Your task to perform on an android device: Open calendar and show me the first week of next month Image 0: 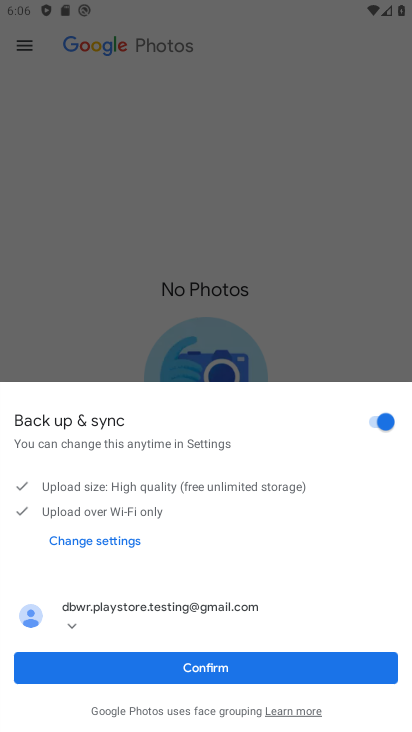
Step 0: press home button
Your task to perform on an android device: Open calendar and show me the first week of next month Image 1: 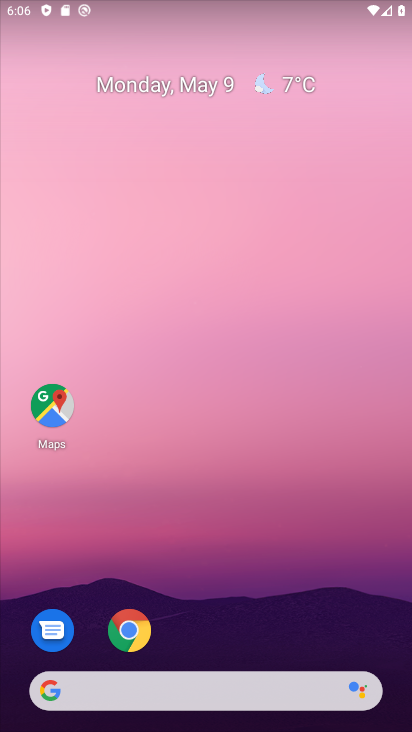
Step 1: drag from (242, 514) to (178, 159)
Your task to perform on an android device: Open calendar and show me the first week of next month Image 2: 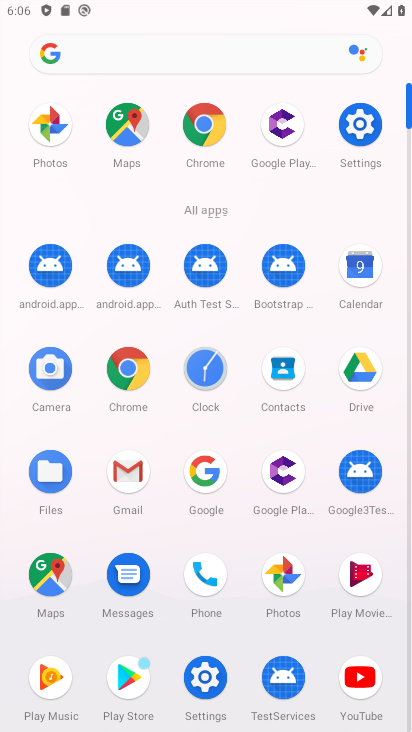
Step 2: drag from (253, 463) to (261, 327)
Your task to perform on an android device: Open calendar and show me the first week of next month Image 3: 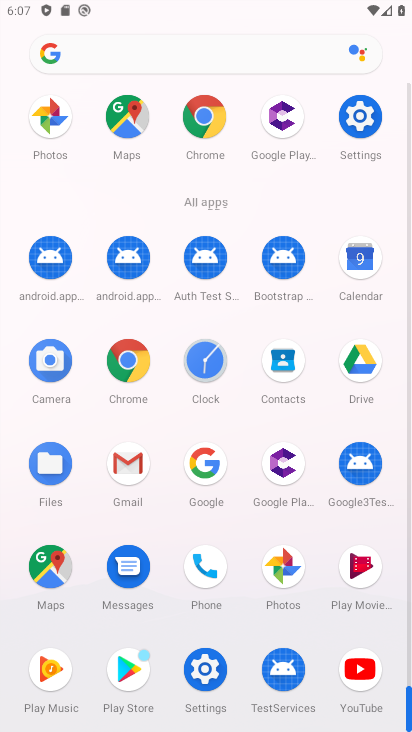
Step 3: drag from (252, 603) to (245, 263)
Your task to perform on an android device: Open calendar and show me the first week of next month Image 4: 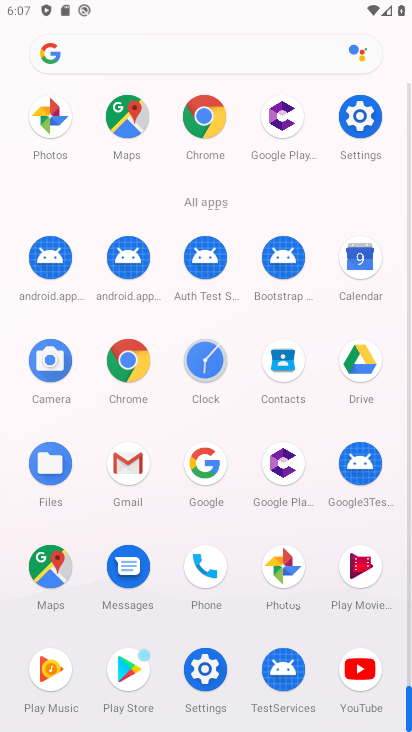
Step 4: drag from (247, 248) to (199, 574)
Your task to perform on an android device: Open calendar and show me the first week of next month Image 5: 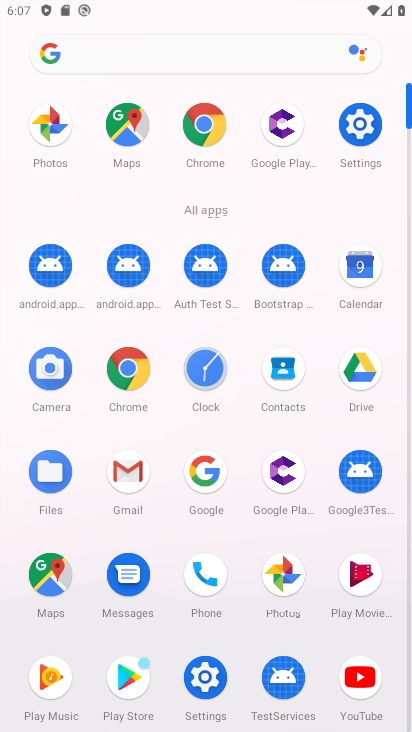
Step 5: drag from (234, 605) to (247, 373)
Your task to perform on an android device: Open calendar and show me the first week of next month Image 6: 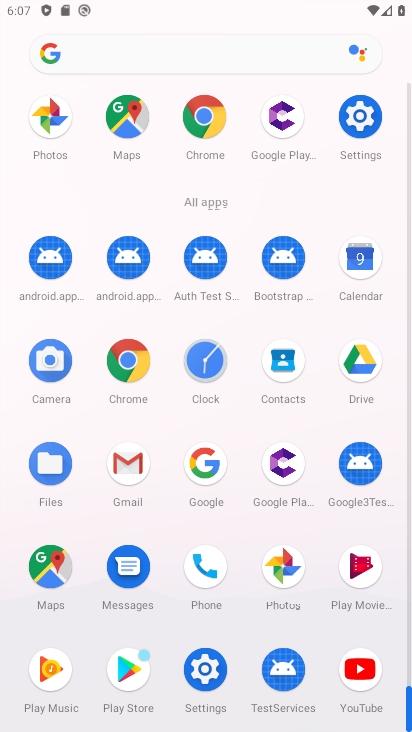
Step 6: click (362, 279)
Your task to perform on an android device: Open calendar and show me the first week of next month Image 7: 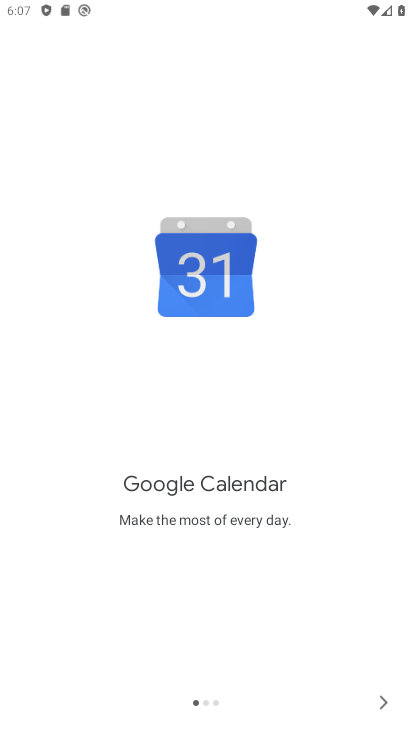
Step 7: click (391, 707)
Your task to perform on an android device: Open calendar and show me the first week of next month Image 8: 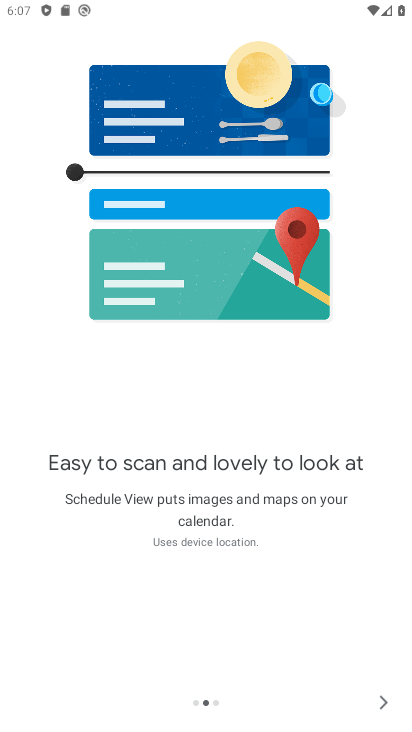
Step 8: click (390, 703)
Your task to perform on an android device: Open calendar and show me the first week of next month Image 9: 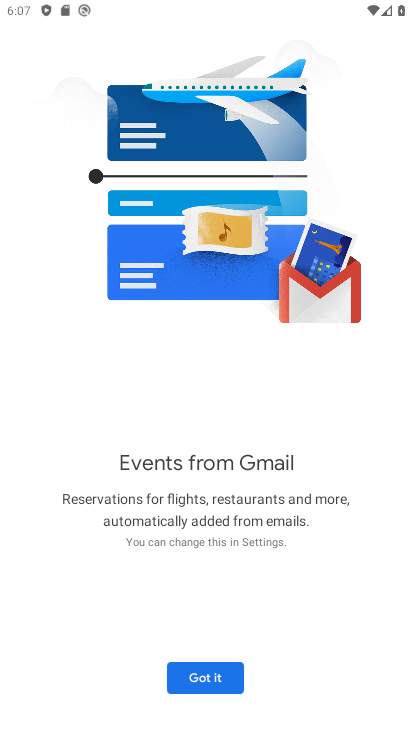
Step 9: click (250, 672)
Your task to perform on an android device: Open calendar and show me the first week of next month Image 10: 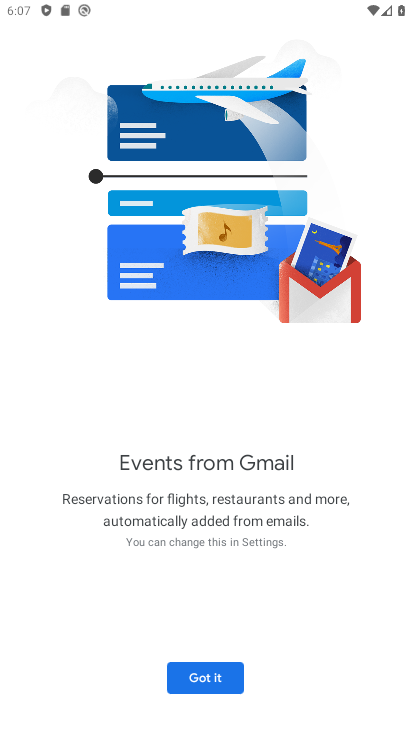
Step 10: click (223, 666)
Your task to perform on an android device: Open calendar and show me the first week of next month Image 11: 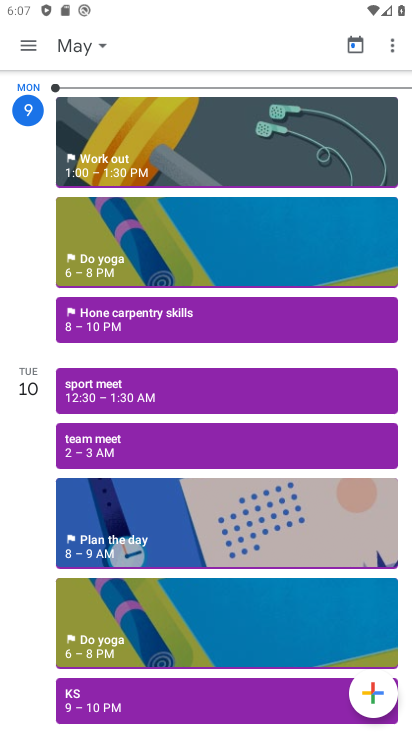
Step 11: click (26, 42)
Your task to perform on an android device: Open calendar and show me the first week of next month Image 12: 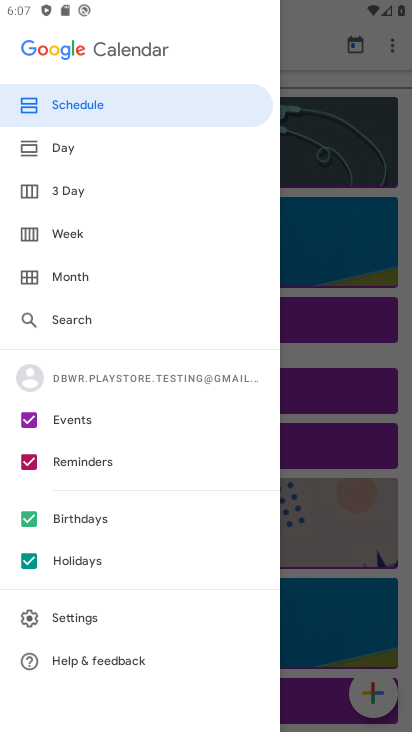
Step 12: click (76, 236)
Your task to perform on an android device: Open calendar and show me the first week of next month Image 13: 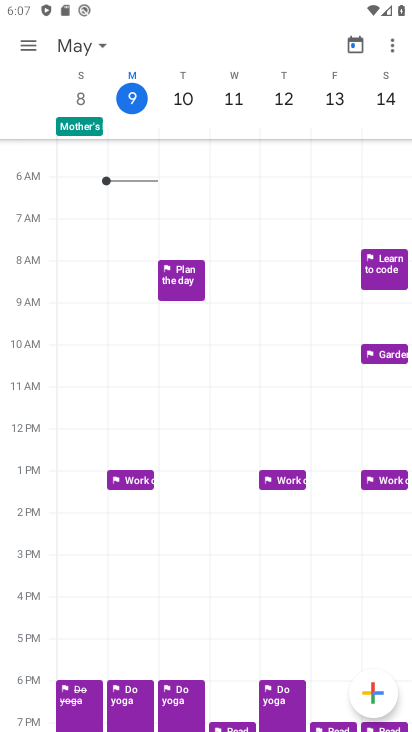
Step 13: click (89, 43)
Your task to perform on an android device: Open calendar and show me the first week of next month Image 14: 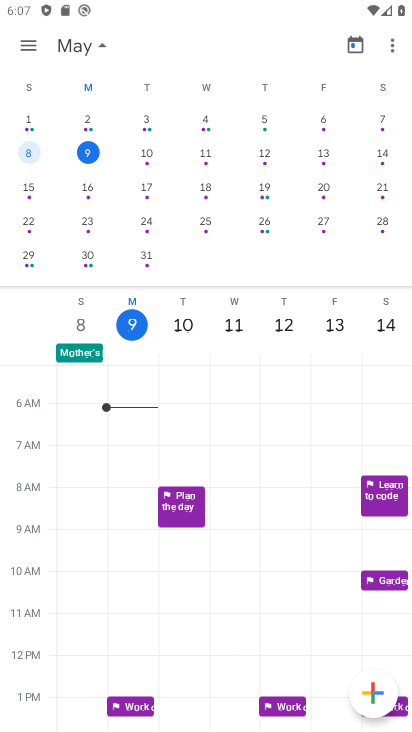
Step 14: drag from (355, 216) to (7, 212)
Your task to perform on an android device: Open calendar and show me the first week of next month Image 15: 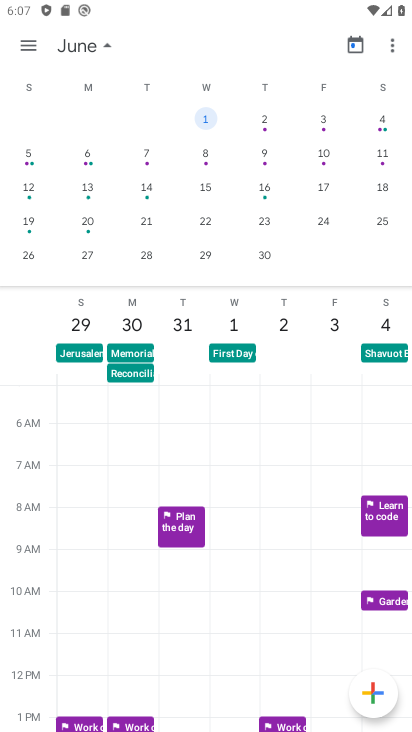
Step 15: click (30, 152)
Your task to perform on an android device: Open calendar and show me the first week of next month Image 16: 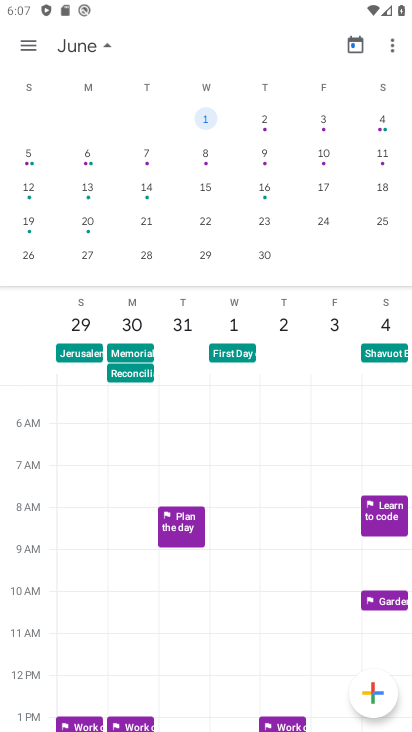
Step 16: click (26, 158)
Your task to perform on an android device: Open calendar and show me the first week of next month Image 17: 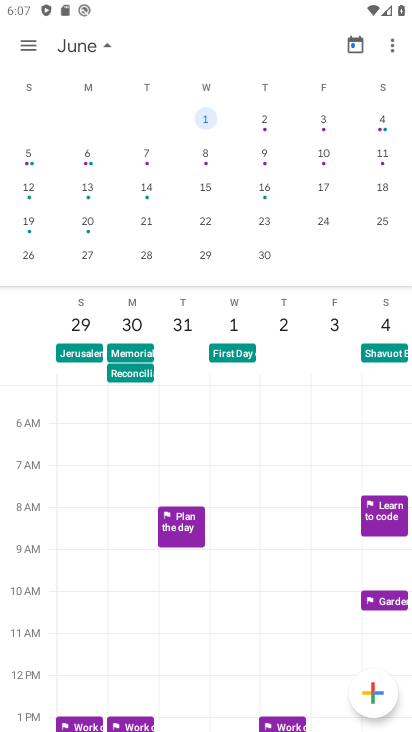
Step 17: click (26, 158)
Your task to perform on an android device: Open calendar and show me the first week of next month Image 18: 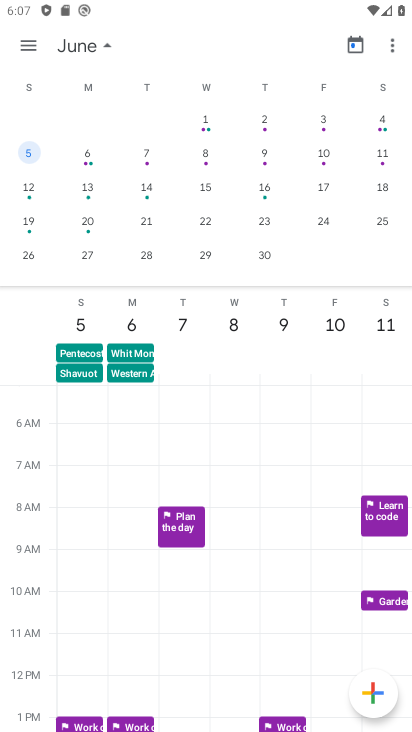
Step 18: task complete